Your task to perform on an android device: allow notifications from all sites in the chrome app Image 0: 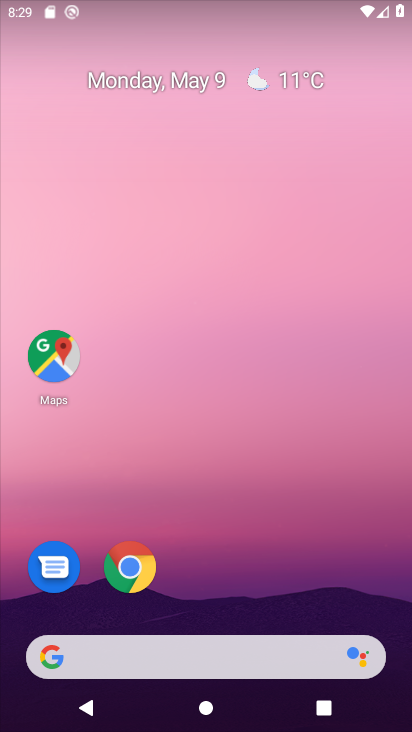
Step 0: click (131, 557)
Your task to perform on an android device: allow notifications from all sites in the chrome app Image 1: 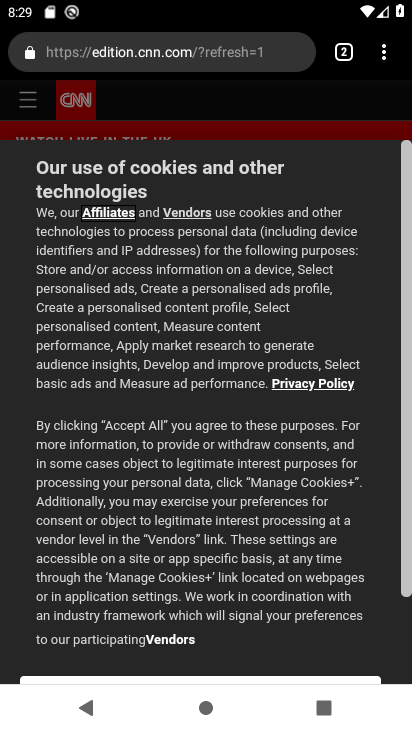
Step 1: click (379, 54)
Your task to perform on an android device: allow notifications from all sites in the chrome app Image 2: 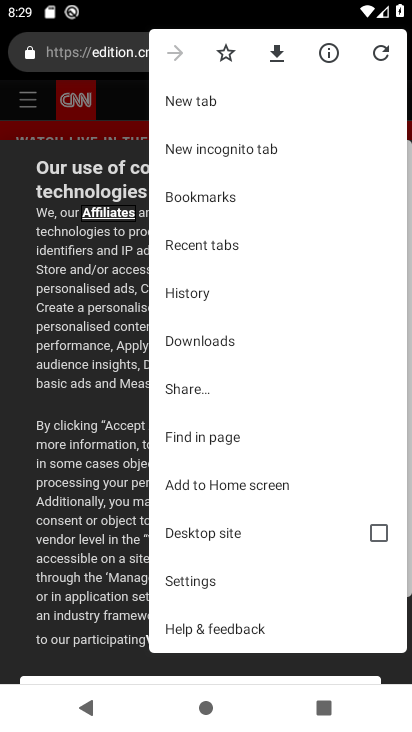
Step 2: click (240, 578)
Your task to perform on an android device: allow notifications from all sites in the chrome app Image 3: 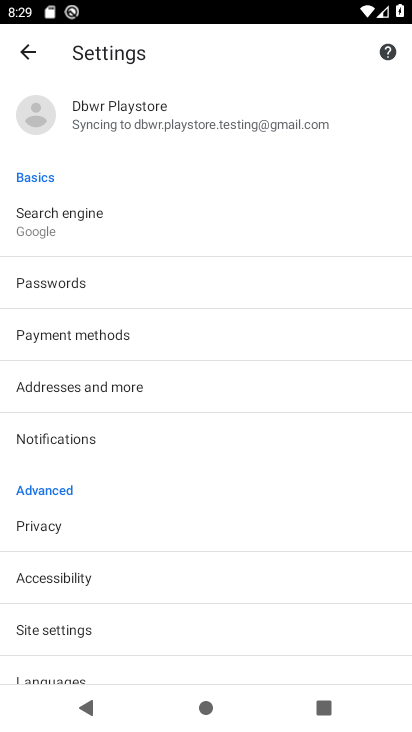
Step 3: click (194, 422)
Your task to perform on an android device: allow notifications from all sites in the chrome app Image 4: 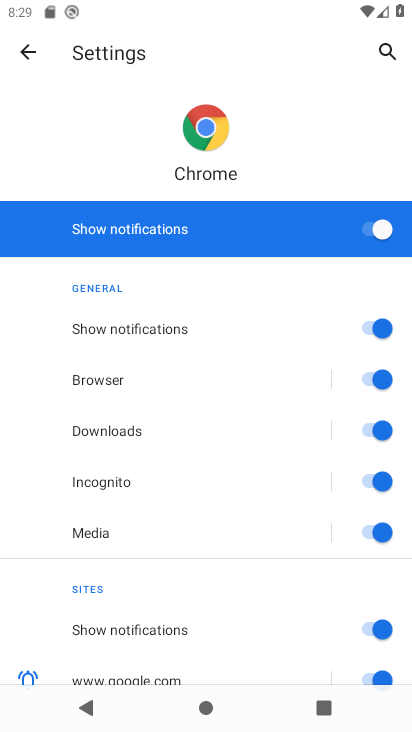
Step 4: task complete